Your task to perform on an android device: open app "Google Play Games" Image 0: 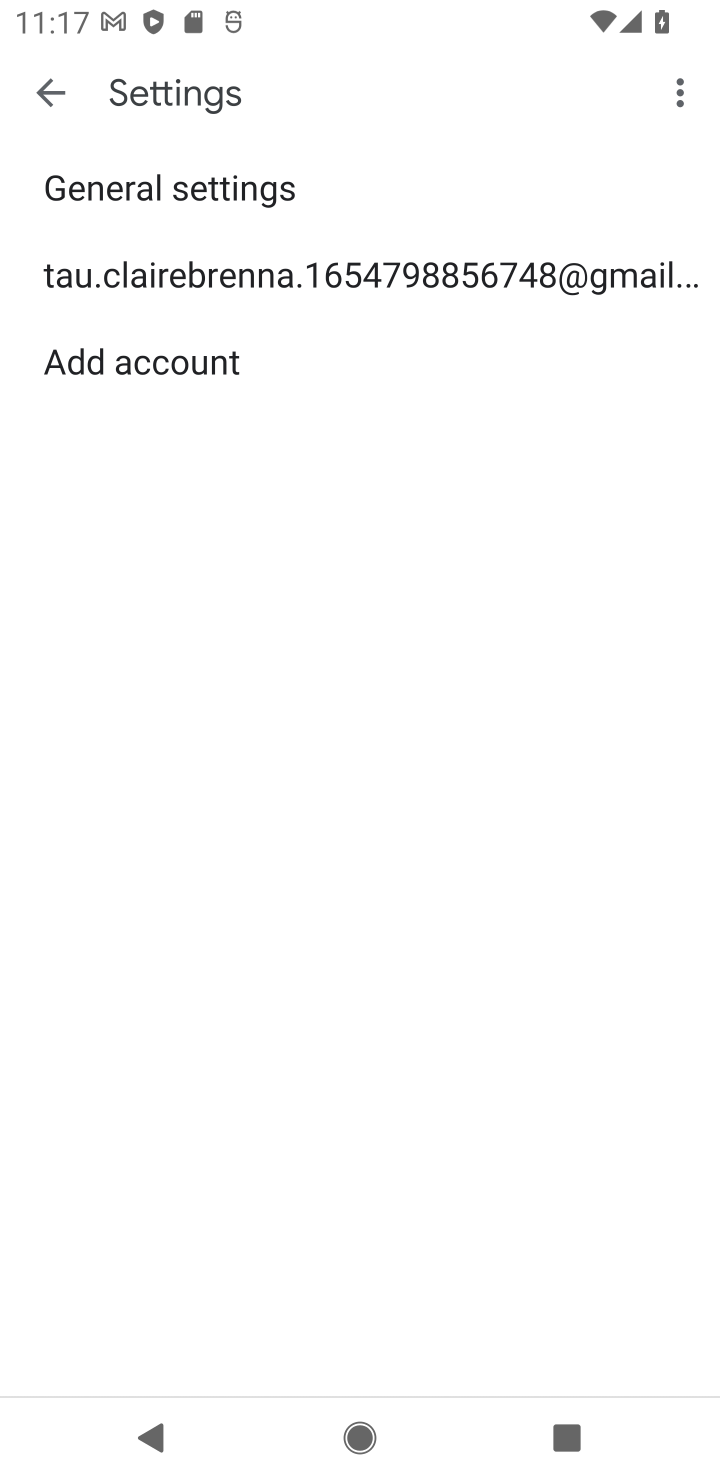
Step 0: press home button
Your task to perform on an android device: open app "Google Play Games" Image 1: 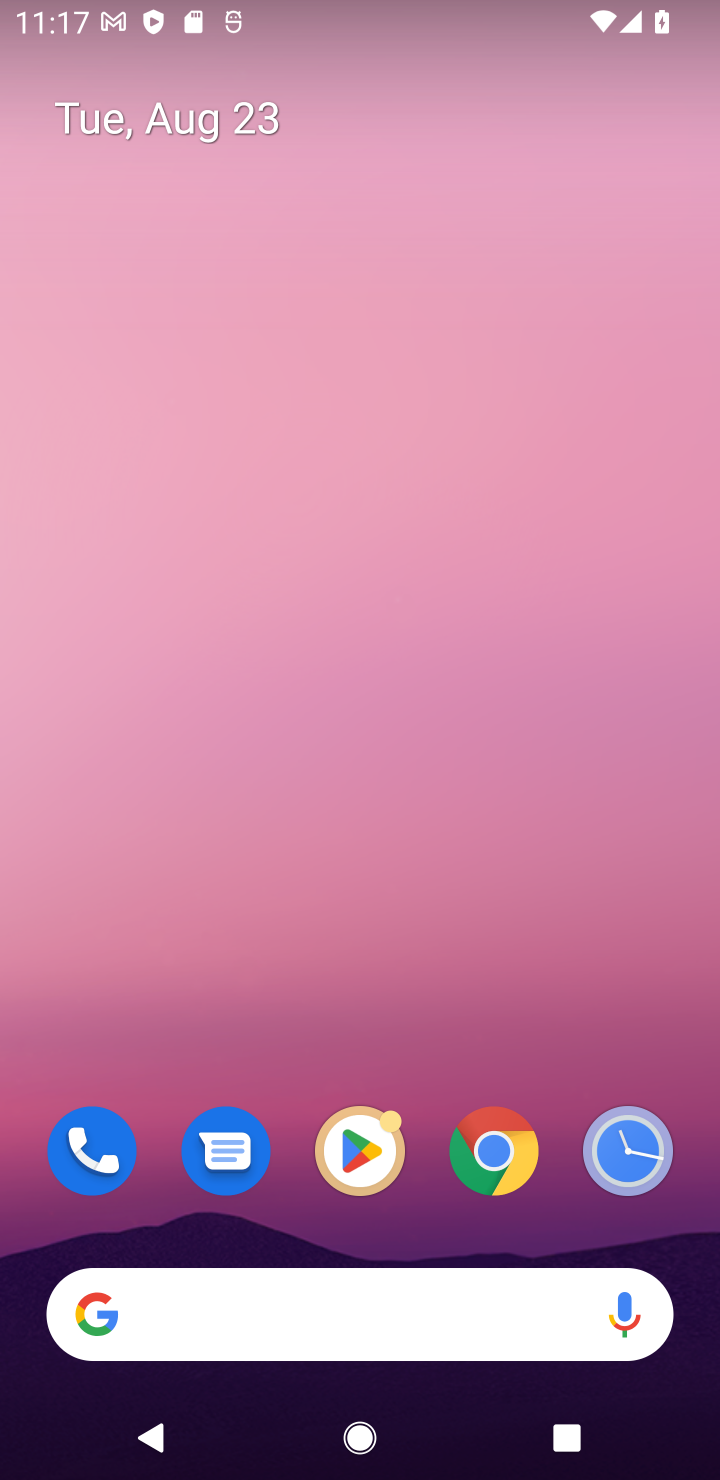
Step 1: drag from (332, 1347) to (307, 0)
Your task to perform on an android device: open app "Google Play Games" Image 2: 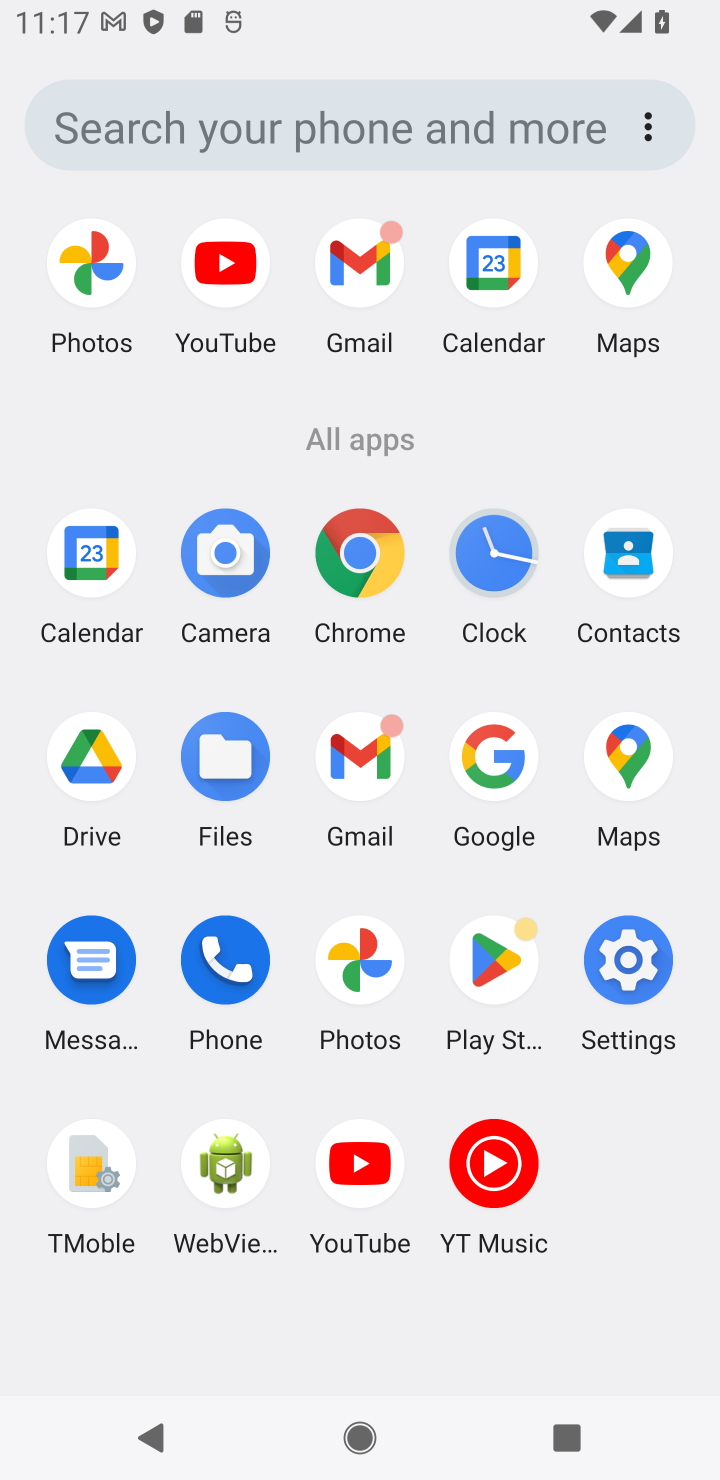
Step 2: click (498, 966)
Your task to perform on an android device: open app "Google Play Games" Image 3: 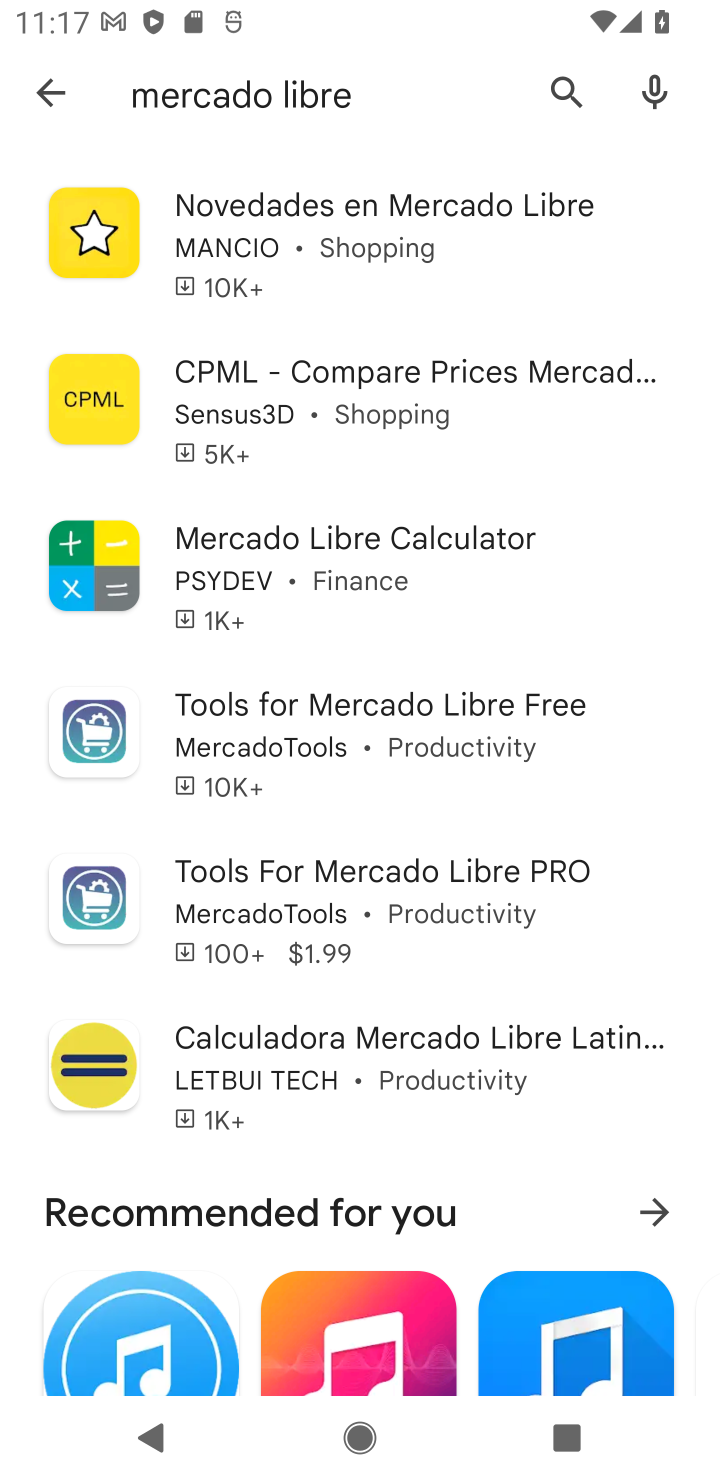
Step 3: press back button
Your task to perform on an android device: open app "Google Play Games" Image 4: 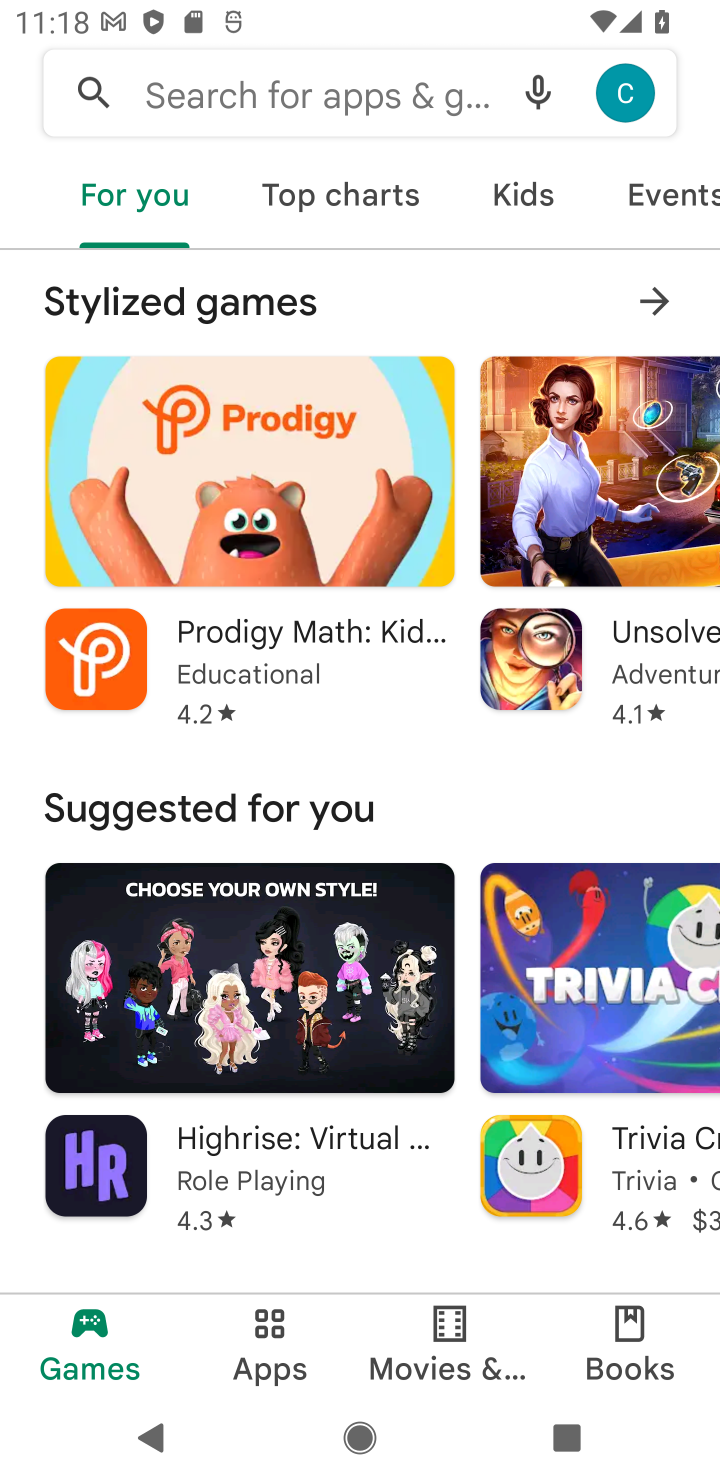
Step 4: click (429, 111)
Your task to perform on an android device: open app "Google Play Games" Image 5: 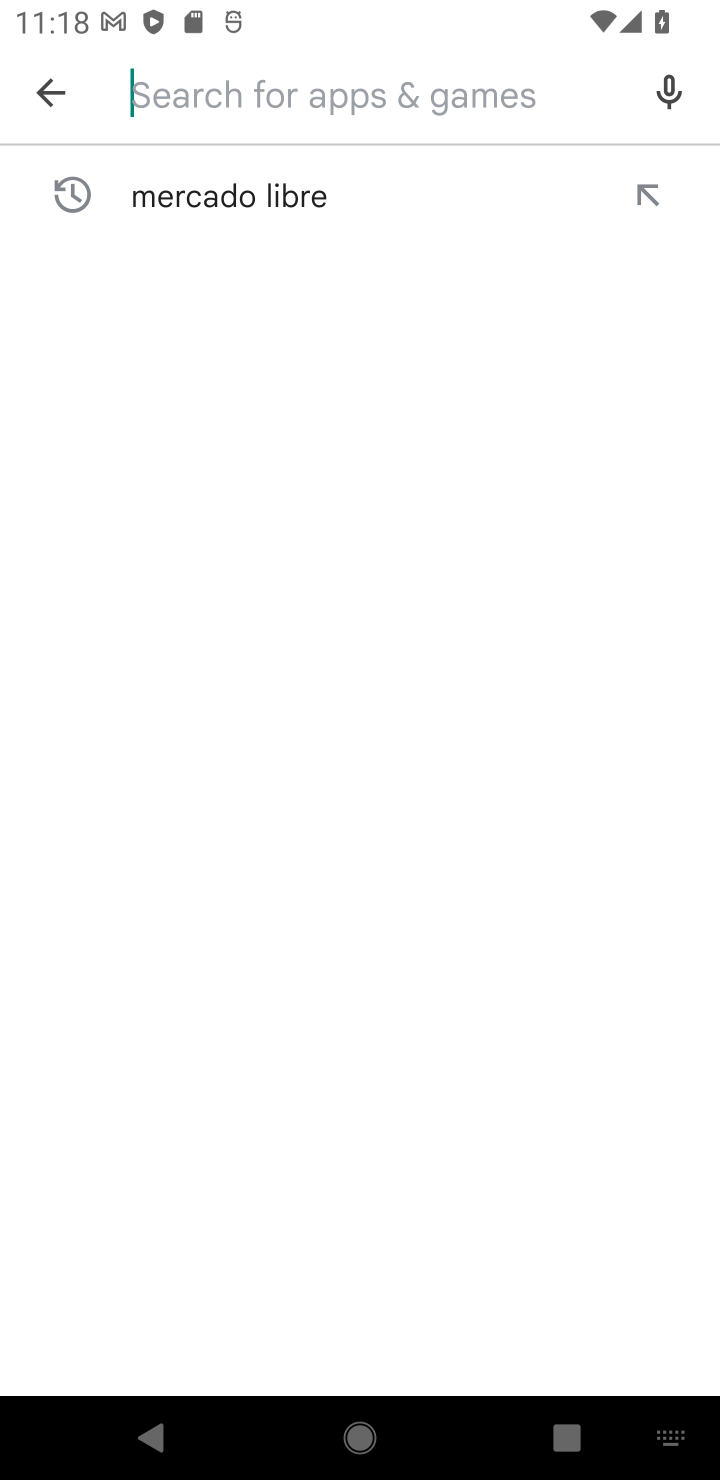
Step 5: type "Google Play Games"
Your task to perform on an android device: open app "Google Play Games" Image 6: 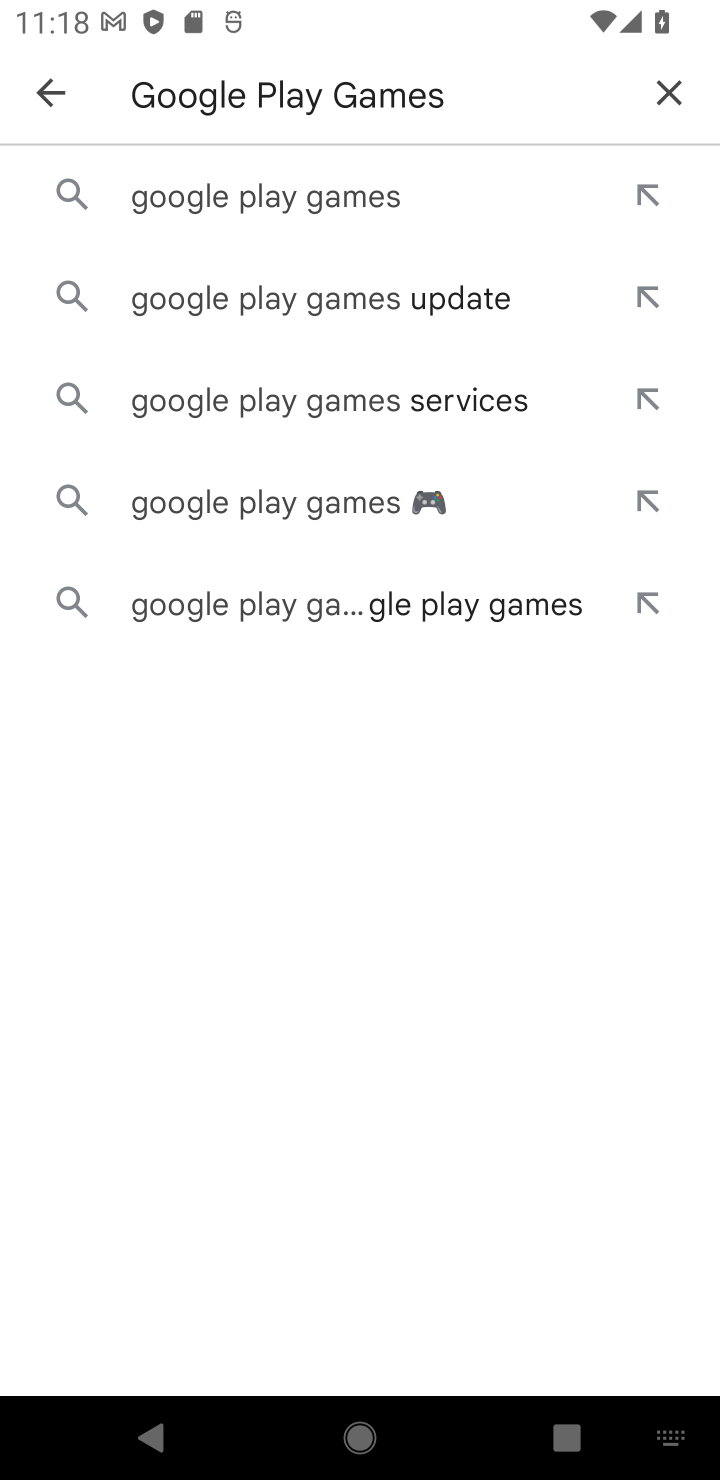
Step 6: click (270, 204)
Your task to perform on an android device: open app "Google Play Games" Image 7: 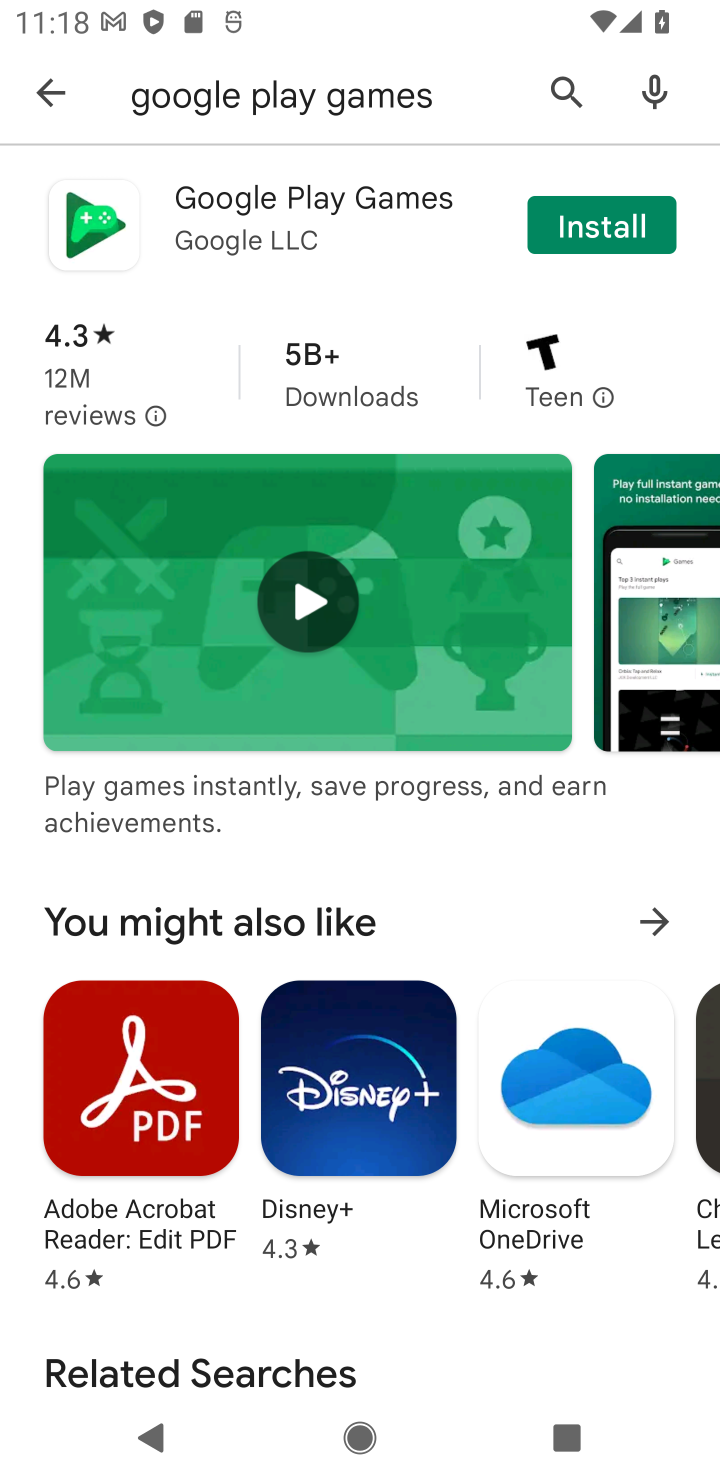
Step 7: task complete